Your task to perform on an android device: Open Chrome and go to the settings page Image 0: 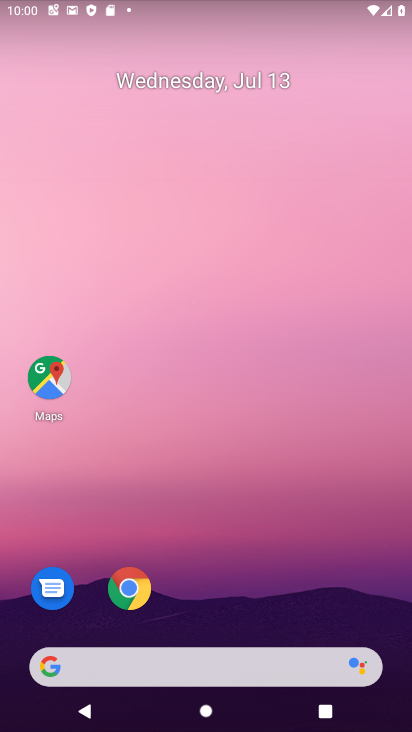
Step 0: press home button
Your task to perform on an android device: Open Chrome and go to the settings page Image 1: 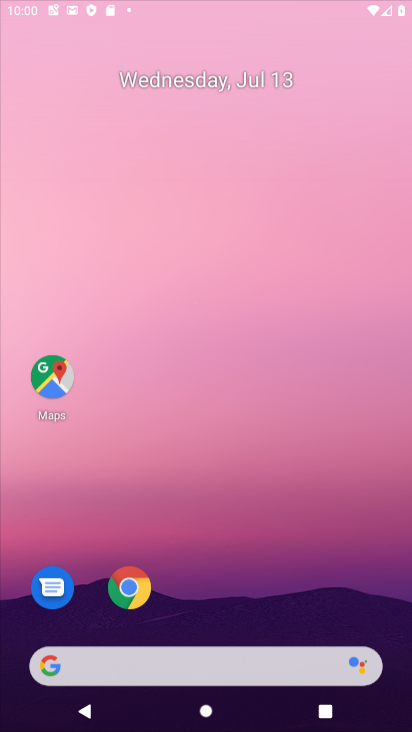
Step 1: drag from (199, 647) to (193, 61)
Your task to perform on an android device: Open Chrome and go to the settings page Image 2: 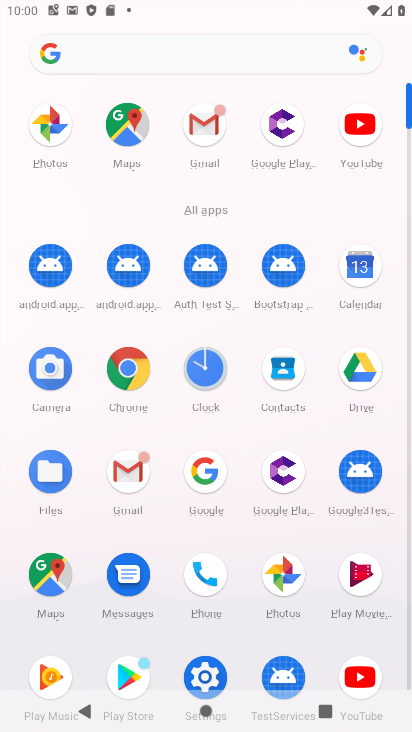
Step 2: click (121, 373)
Your task to perform on an android device: Open Chrome and go to the settings page Image 3: 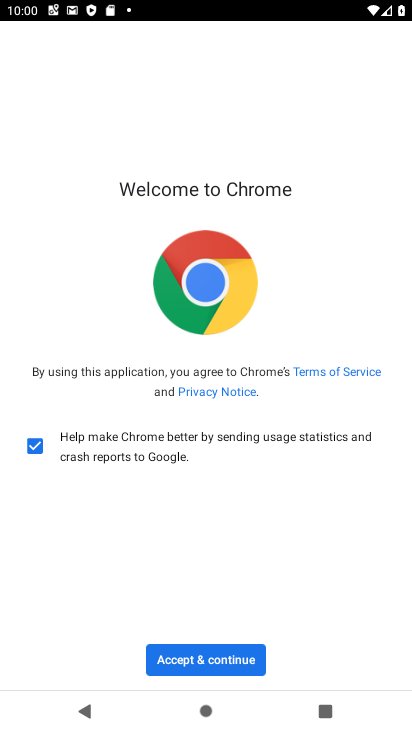
Step 3: click (210, 664)
Your task to perform on an android device: Open Chrome and go to the settings page Image 4: 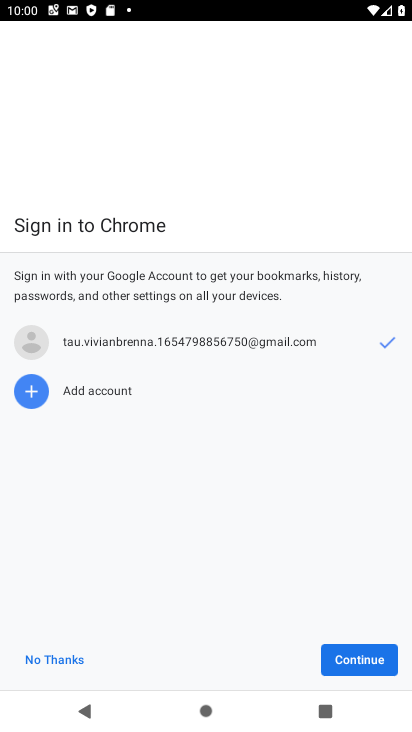
Step 4: click (359, 656)
Your task to perform on an android device: Open Chrome and go to the settings page Image 5: 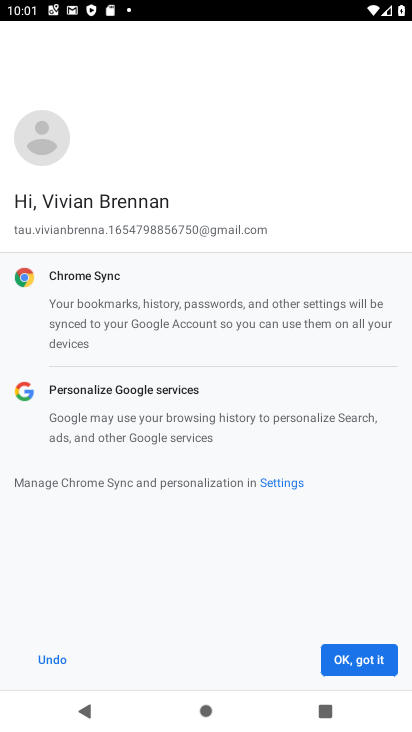
Step 5: click (359, 656)
Your task to perform on an android device: Open Chrome and go to the settings page Image 6: 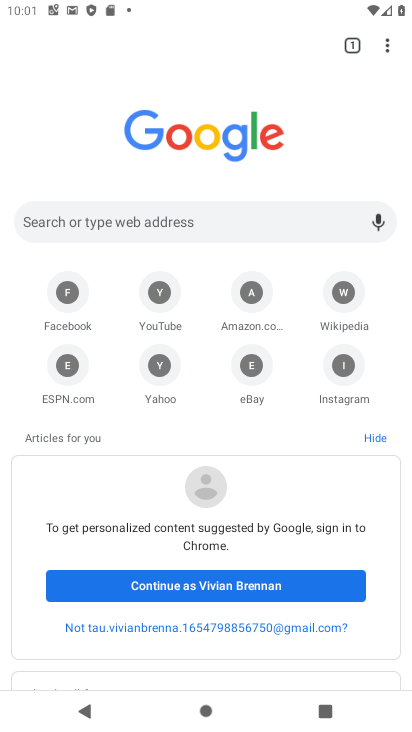
Step 6: task complete